Your task to perform on an android device: Open Google Chrome Image 0: 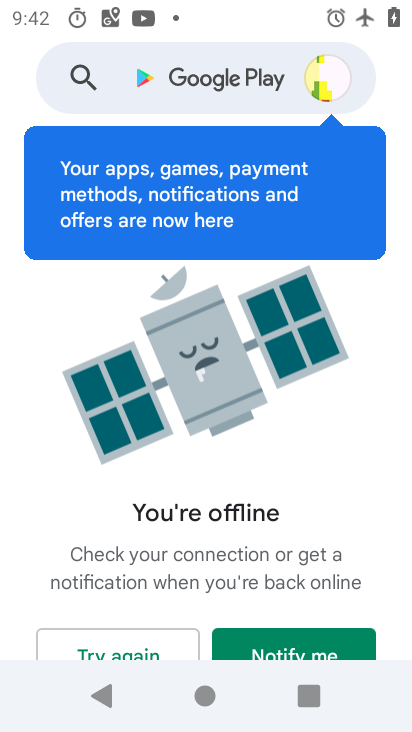
Step 0: press home button
Your task to perform on an android device: Open Google Chrome Image 1: 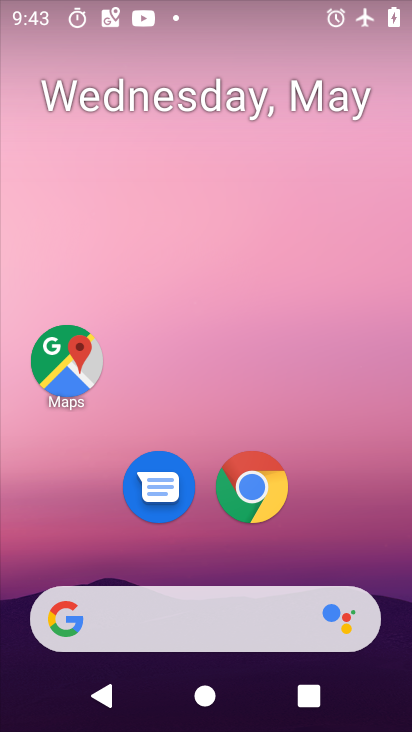
Step 1: click (260, 489)
Your task to perform on an android device: Open Google Chrome Image 2: 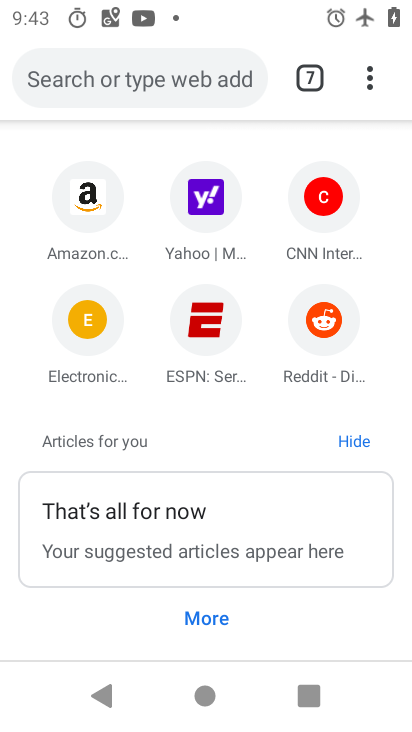
Step 2: task complete